Your task to perform on an android device: visit the assistant section in the google photos Image 0: 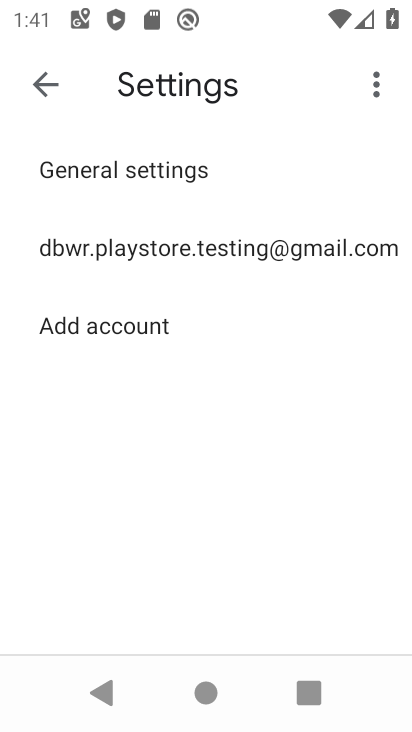
Step 0: press home button
Your task to perform on an android device: visit the assistant section in the google photos Image 1: 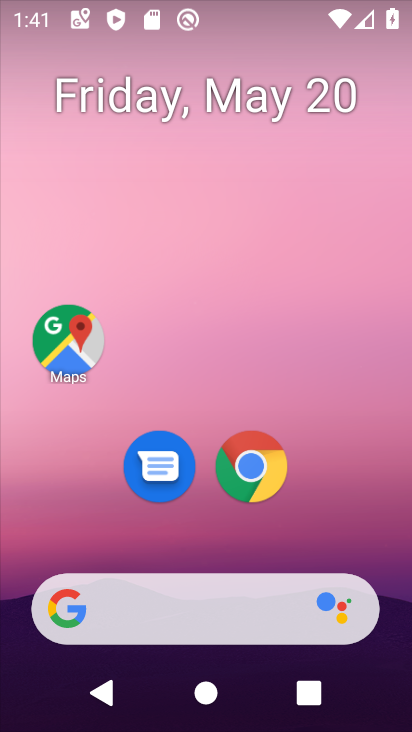
Step 1: drag from (202, 530) to (163, 151)
Your task to perform on an android device: visit the assistant section in the google photos Image 2: 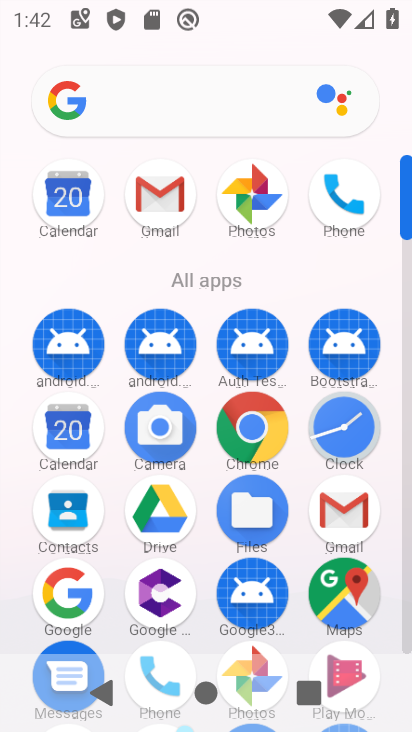
Step 2: click (237, 671)
Your task to perform on an android device: visit the assistant section in the google photos Image 3: 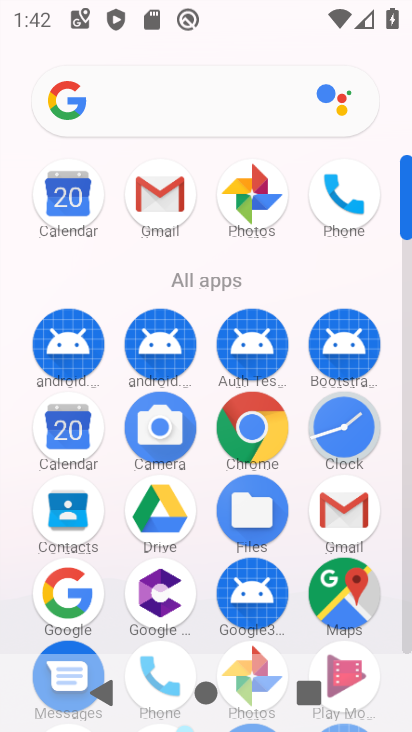
Step 3: click (242, 641)
Your task to perform on an android device: visit the assistant section in the google photos Image 4: 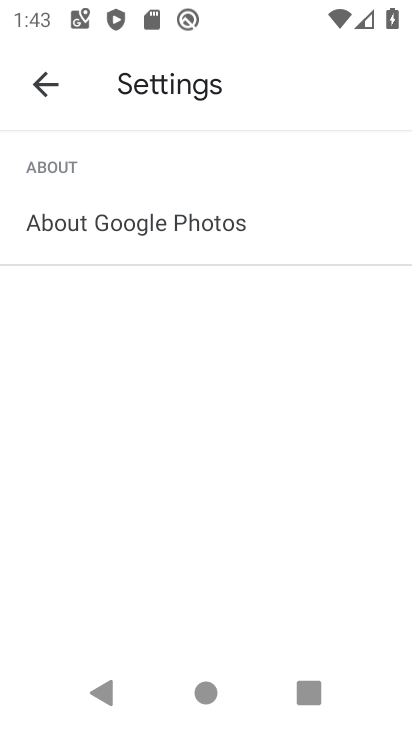
Step 4: click (55, 85)
Your task to perform on an android device: visit the assistant section in the google photos Image 5: 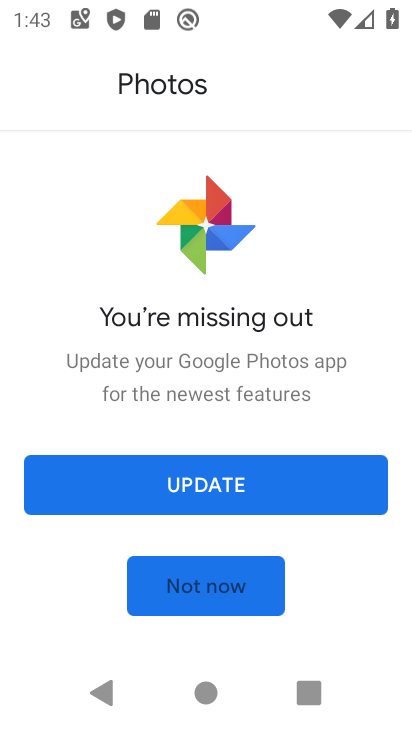
Step 5: click (191, 568)
Your task to perform on an android device: visit the assistant section in the google photos Image 6: 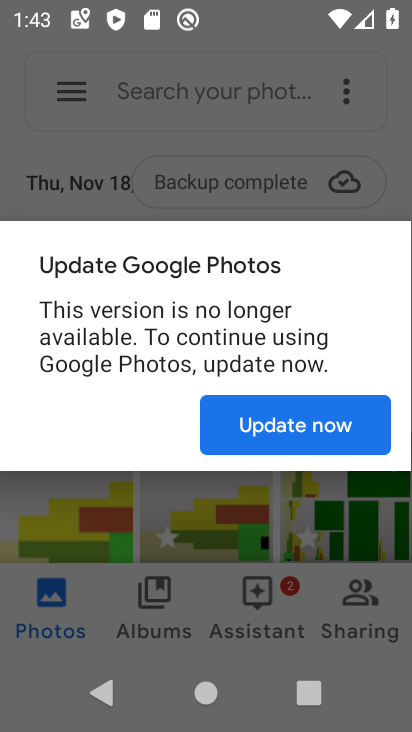
Step 6: click (248, 434)
Your task to perform on an android device: visit the assistant section in the google photos Image 7: 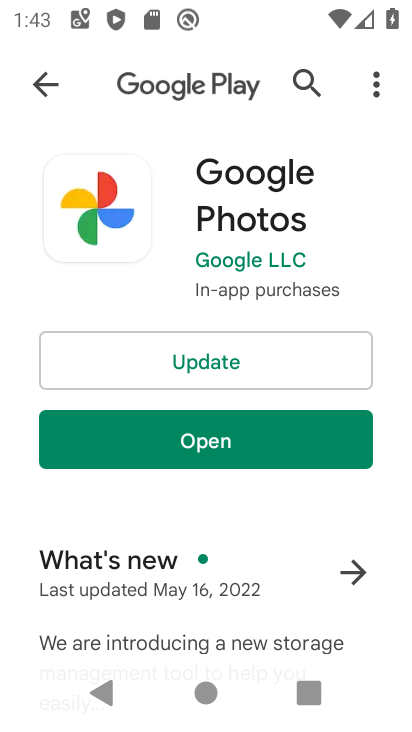
Step 7: click (113, 457)
Your task to perform on an android device: visit the assistant section in the google photos Image 8: 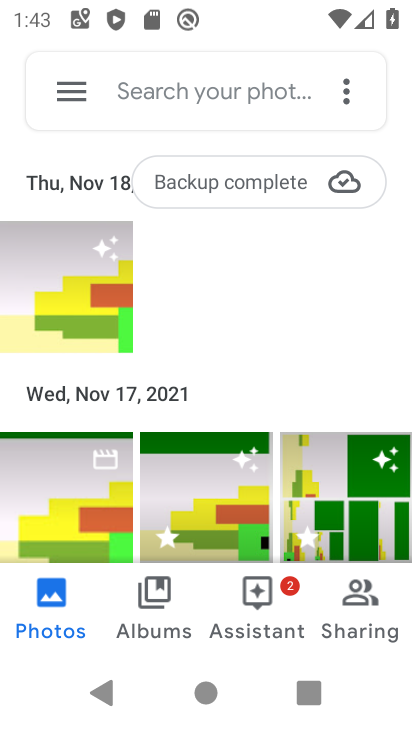
Step 8: click (255, 614)
Your task to perform on an android device: visit the assistant section in the google photos Image 9: 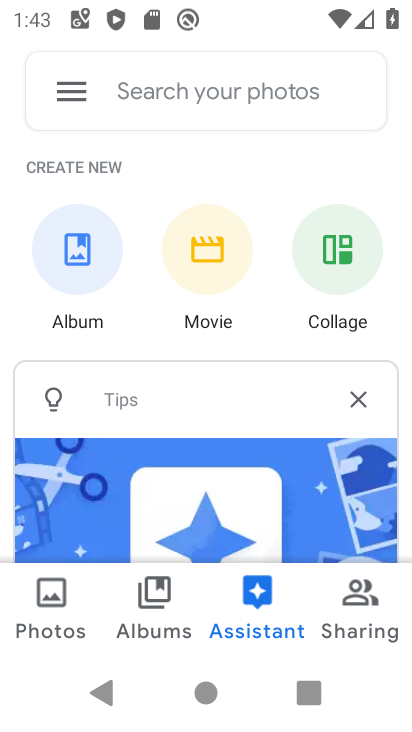
Step 9: task complete